Your task to perform on an android device: toggle improve location accuracy Image 0: 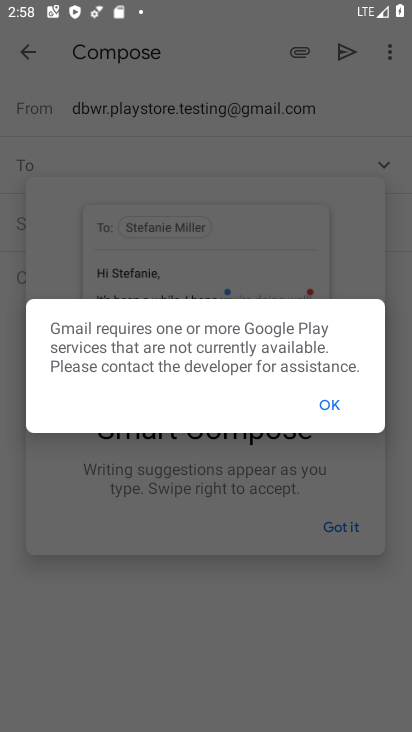
Step 0: press home button
Your task to perform on an android device: toggle improve location accuracy Image 1: 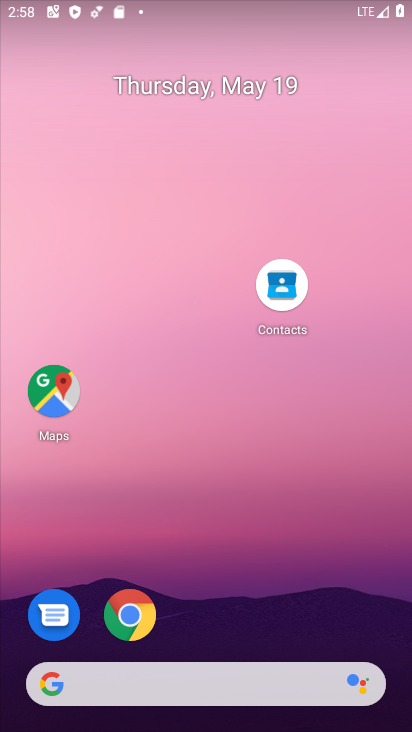
Step 1: drag from (292, 605) to (398, 141)
Your task to perform on an android device: toggle improve location accuracy Image 2: 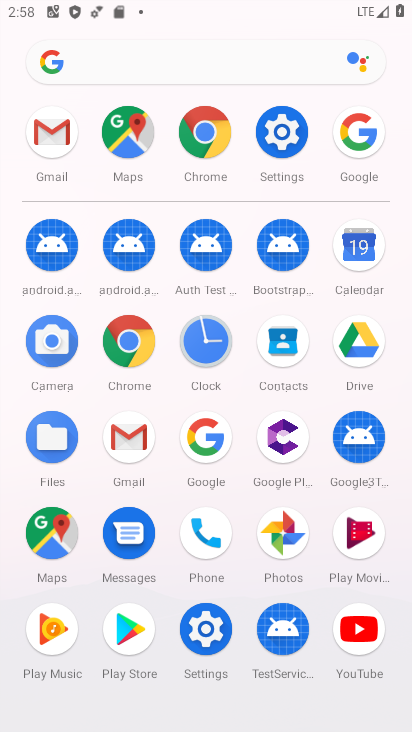
Step 2: click (285, 162)
Your task to perform on an android device: toggle improve location accuracy Image 3: 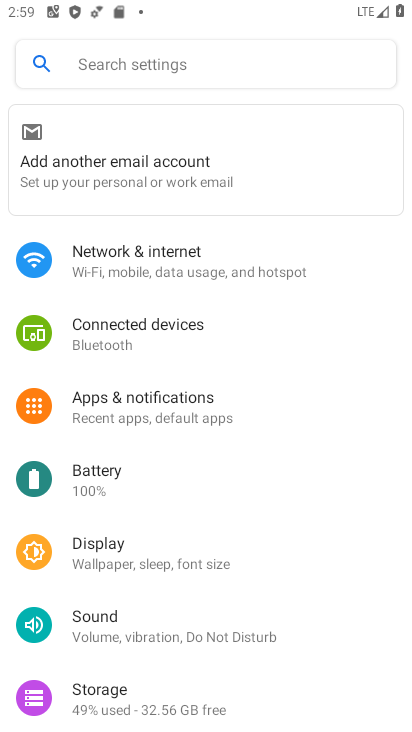
Step 3: drag from (150, 547) to (208, 377)
Your task to perform on an android device: toggle improve location accuracy Image 4: 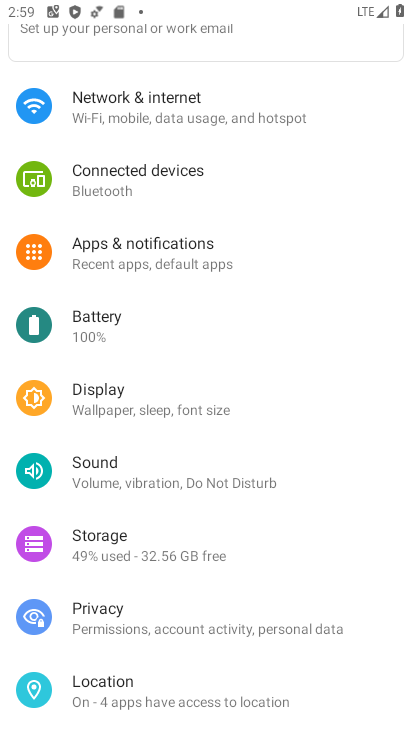
Step 4: drag from (180, 508) to (211, 377)
Your task to perform on an android device: toggle improve location accuracy Image 5: 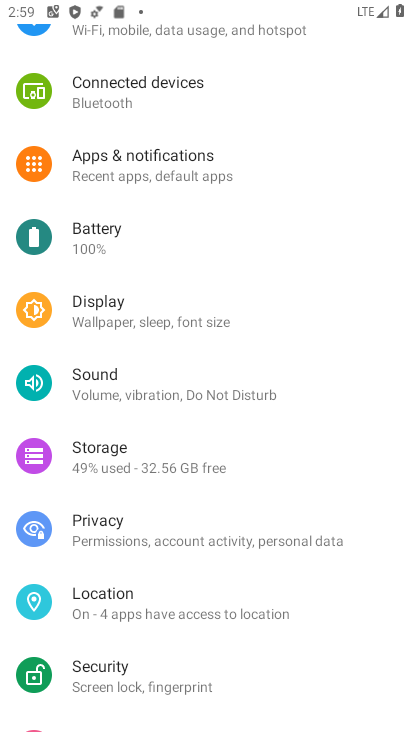
Step 5: click (161, 604)
Your task to perform on an android device: toggle improve location accuracy Image 6: 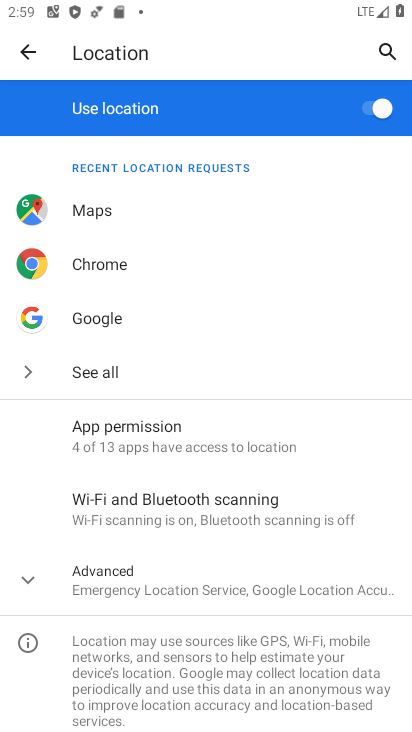
Step 6: click (185, 583)
Your task to perform on an android device: toggle improve location accuracy Image 7: 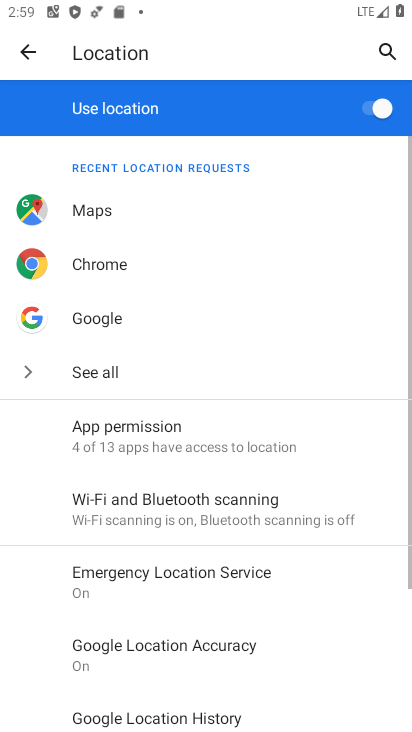
Step 7: drag from (200, 573) to (259, 322)
Your task to perform on an android device: toggle improve location accuracy Image 8: 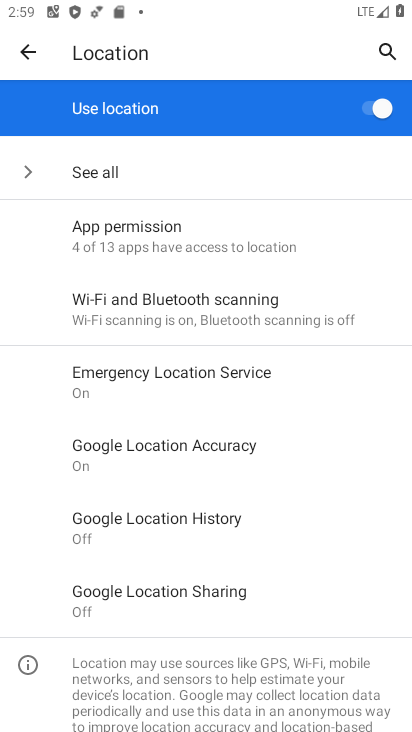
Step 8: click (219, 467)
Your task to perform on an android device: toggle improve location accuracy Image 9: 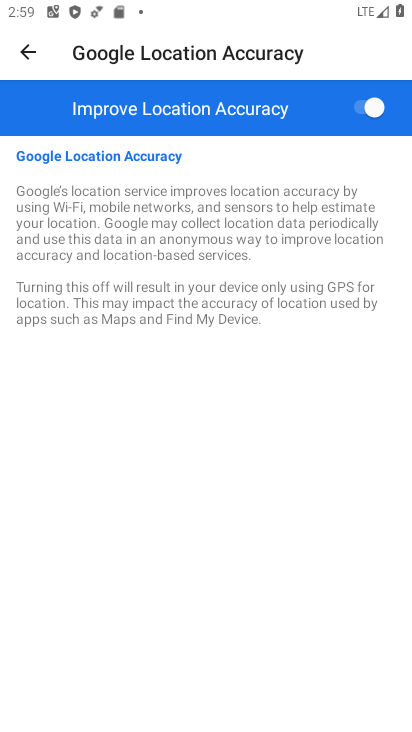
Step 9: click (364, 114)
Your task to perform on an android device: toggle improve location accuracy Image 10: 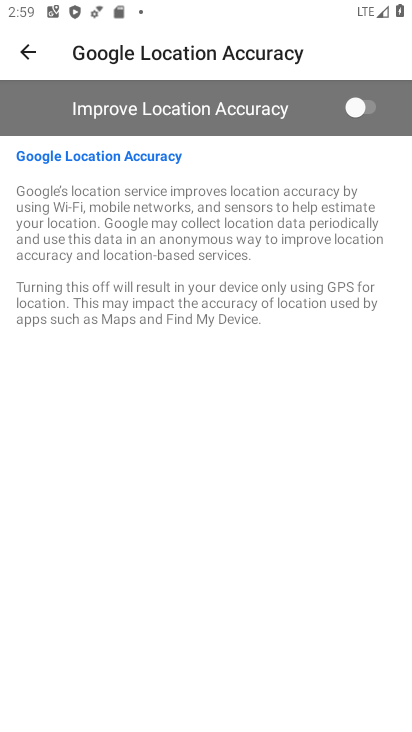
Step 10: task complete